Your task to perform on an android device: Play the last video I watched on Youtube Image 0: 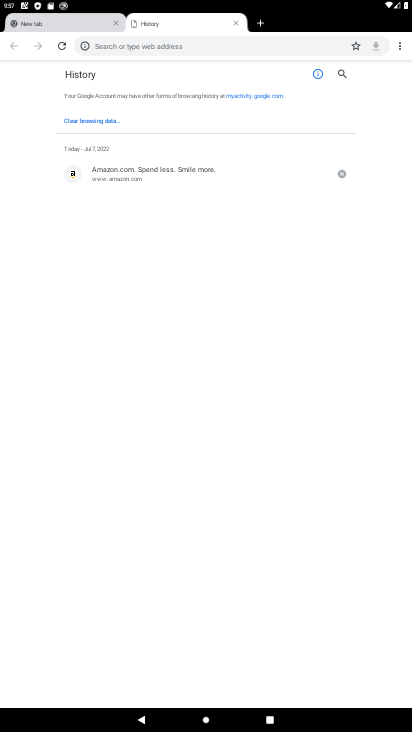
Step 0: press home button
Your task to perform on an android device: Play the last video I watched on Youtube Image 1: 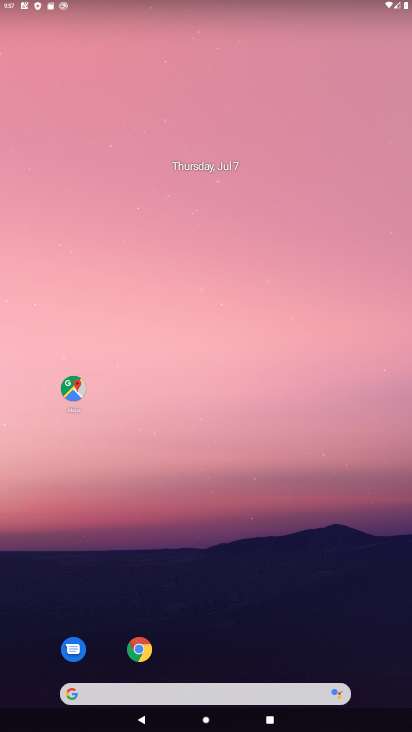
Step 1: drag from (266, 612) to (286, 137)
Your task to perform on an android device: Play the last video I watched on Youtube Image 2: 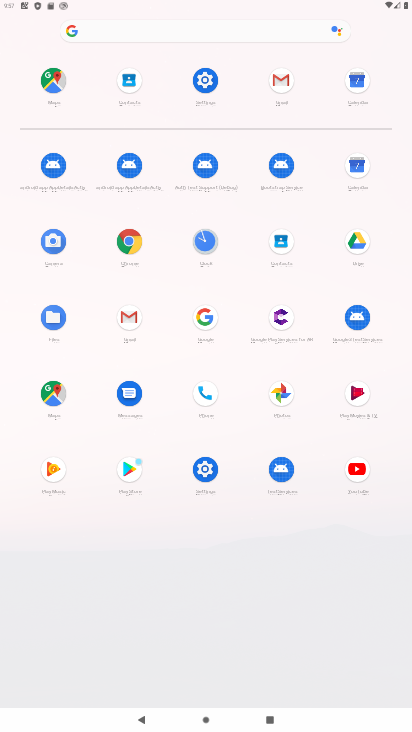
Step 2: click (354, 473)
Your task to perform on an android device: Play the last video I watched on Youtube Image 3: 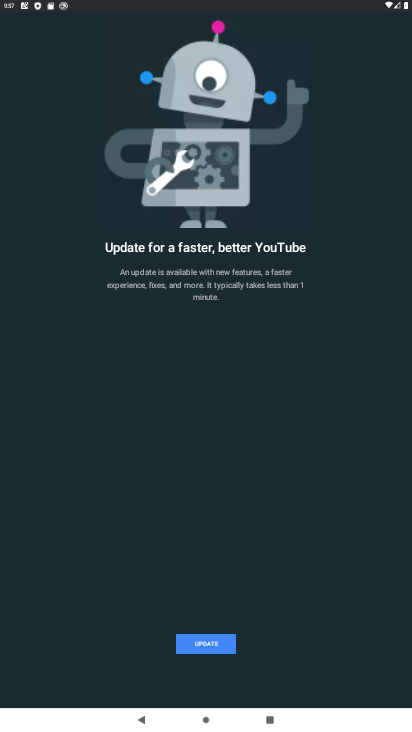
Step 3: click (218, 641)
Your task to perform on an android device: Play the last video I watched on Youtube Image 4: 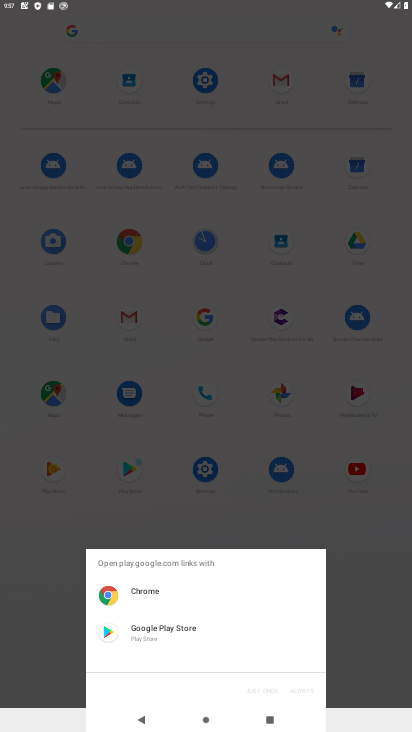
Step 4: task complete